Your task to perform on an android device: open app "PlayWell" Image 0: 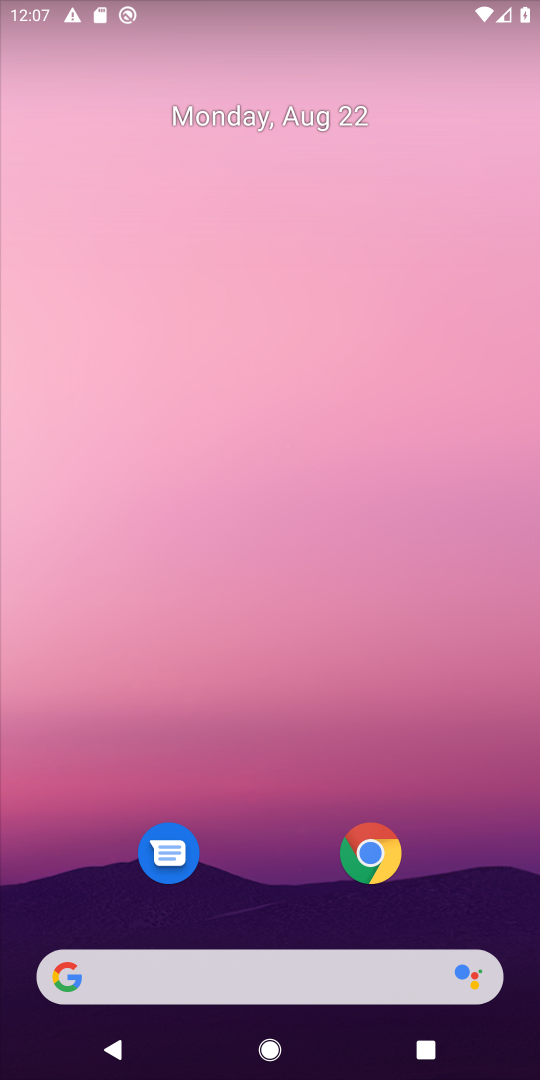
Step 0: drag from (218, 909) to (265, 239)
Your task to perform on an android device: open app "PlayWell" Image 1: 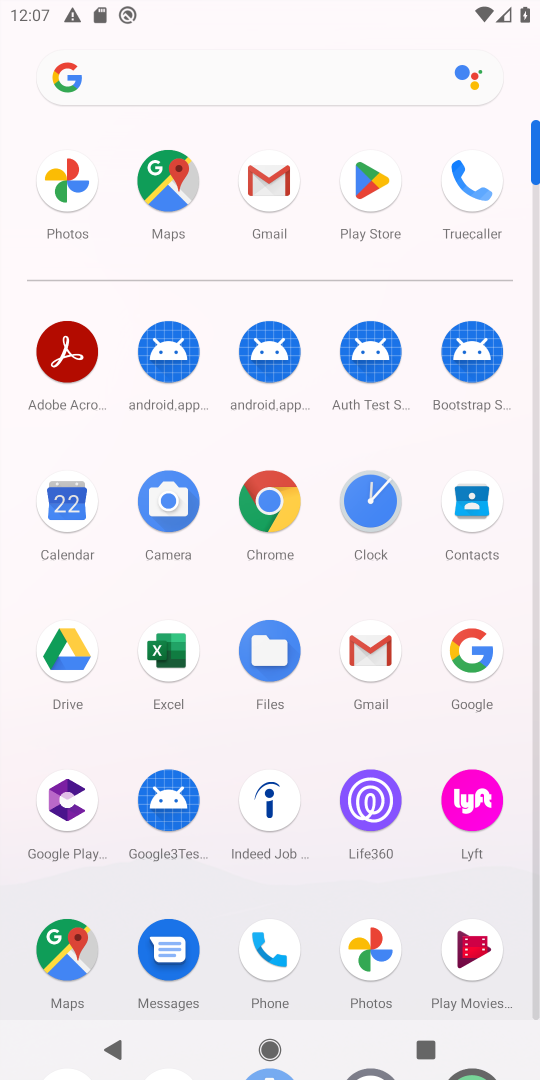
Step 1: click (371, 170)
Your task to perform on an android device: open app "PlayWell" Image 2: 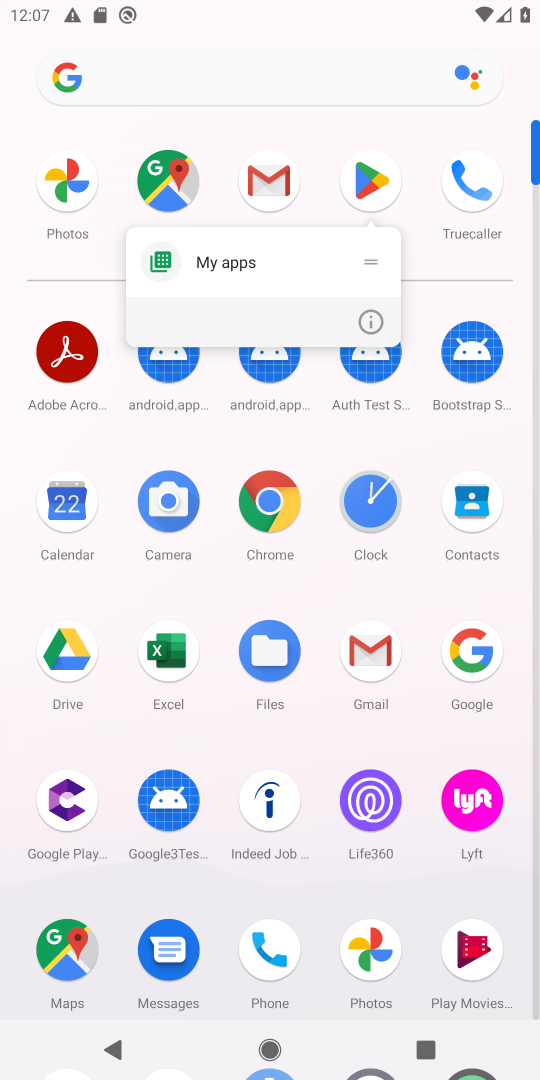
Step 2: click (360, 171)
Your task to perform on an android device: open app "PlayWell" Image 3: 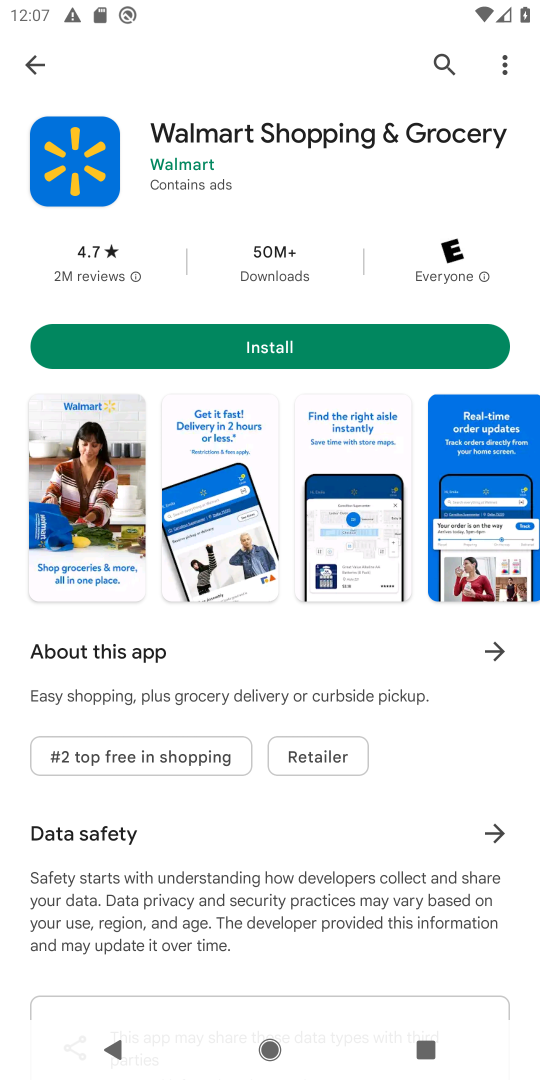
Step 3: click (19, 57)
Your task to perform on an android device: open app "PlayWell" Image 4: 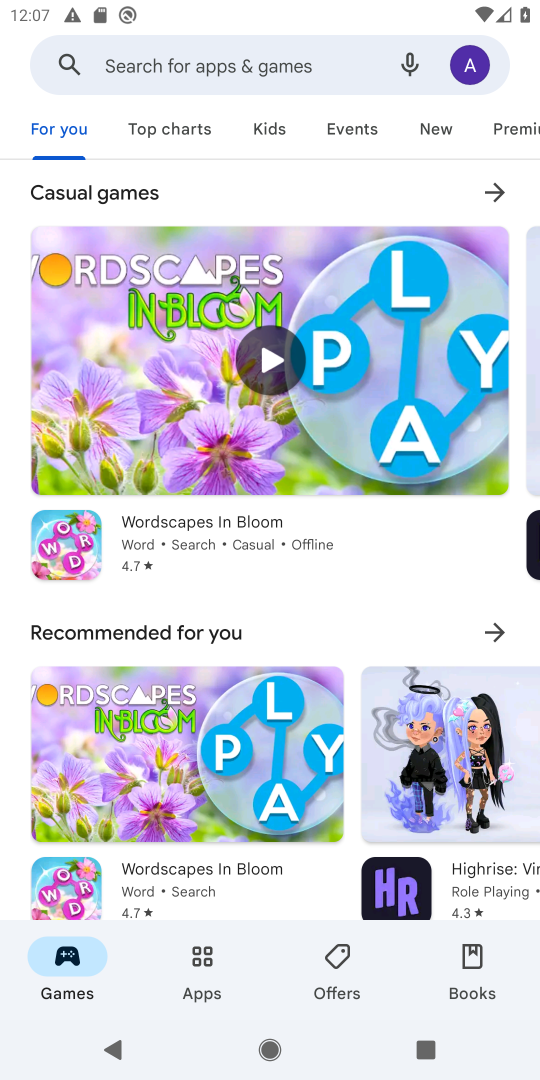
Step 4: click (149, 58)
Your task to perform on an android device: open app "PlayWell" Image 5: 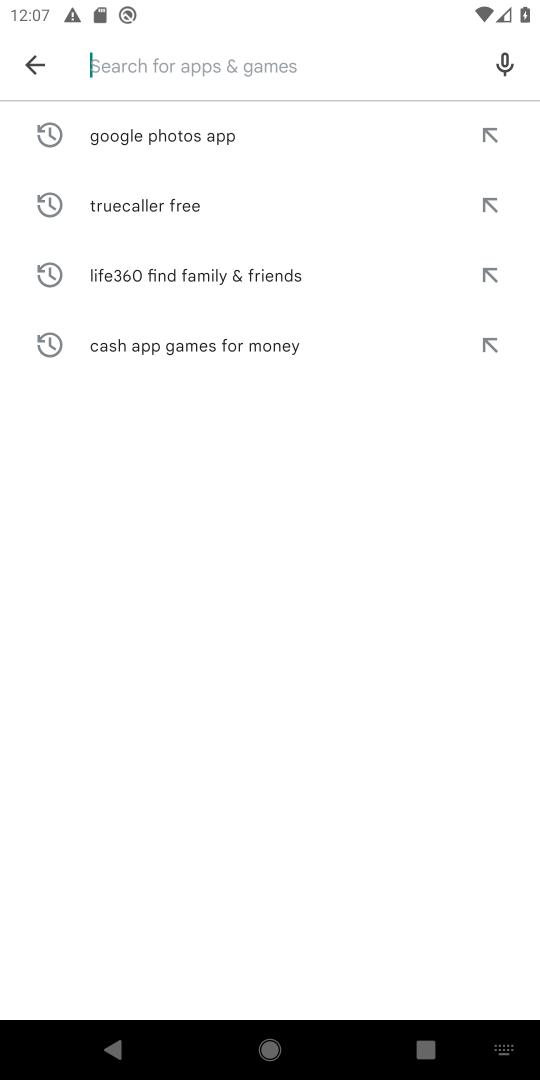
Step 5: type "playwell "
Your task to perform on an android device: open app "PlayWell" Image 6: 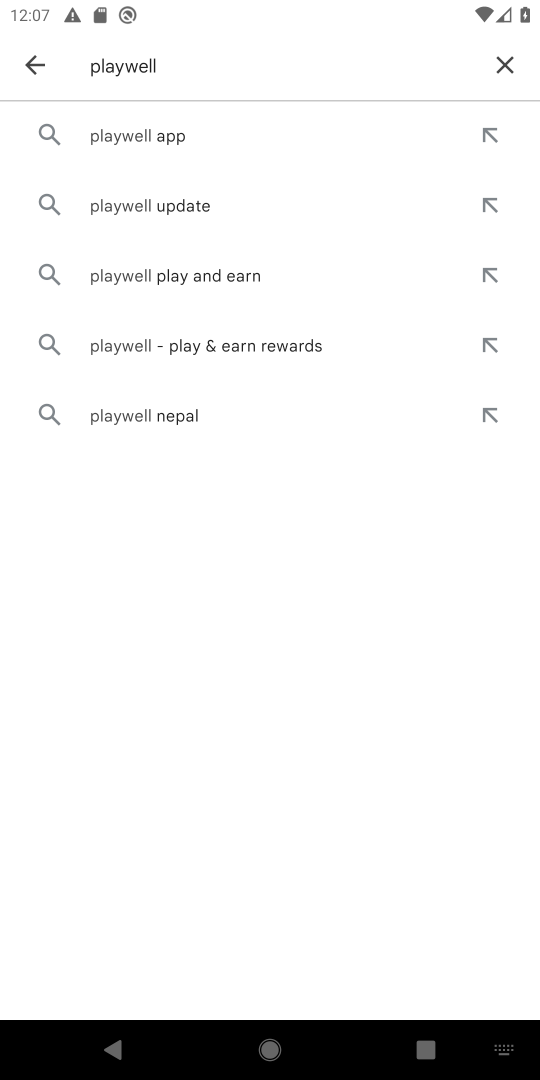
Step 6: click (158, 142)
Your task to perform on an android device: open app "PlayWell" Image 7: 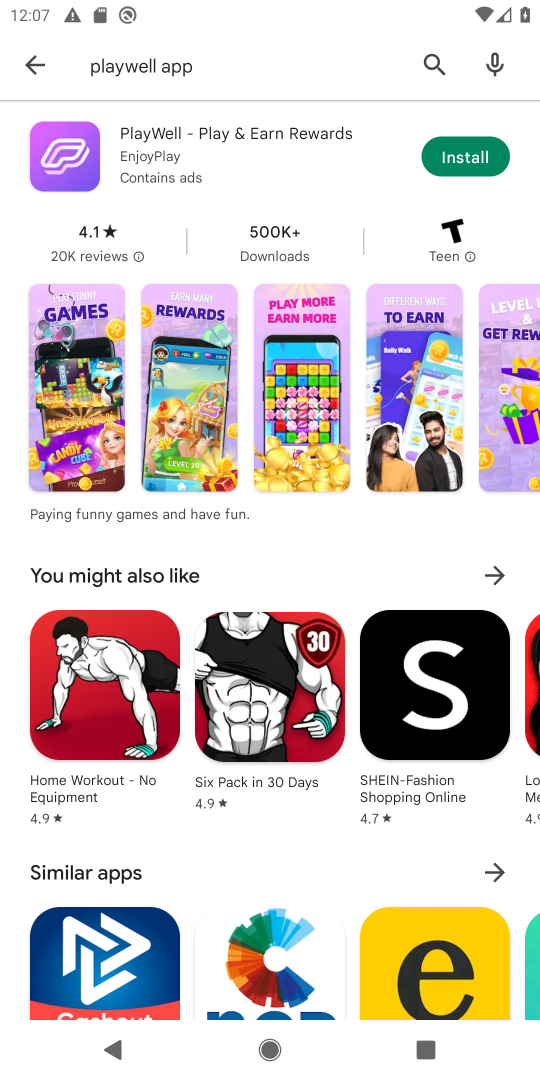
Step 7: click (455, 155)
Your task to perform on an android device: open app "PlayWell" Image 8: 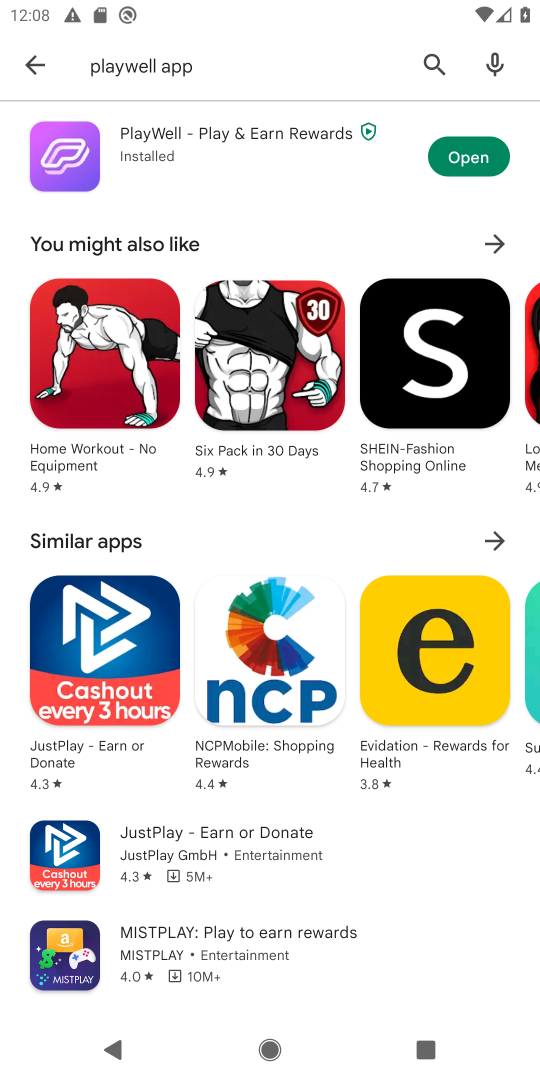
Step 8: click (458, 139)
Your task to perform on an android device: open app "PlayWell" Image 9: 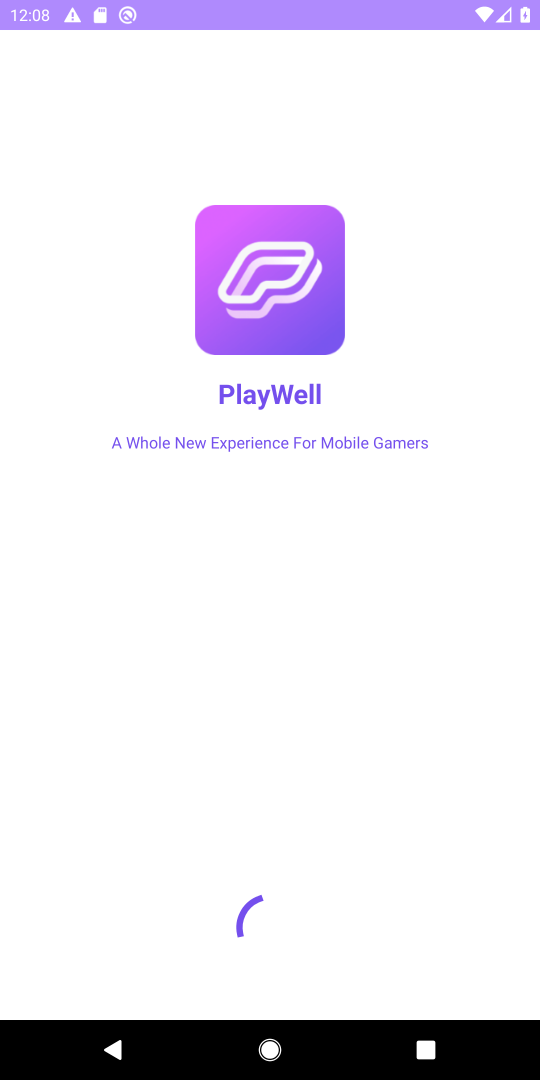
Step 9: task complete